Your task to perform on an android device: What is the recent news? Image 0: 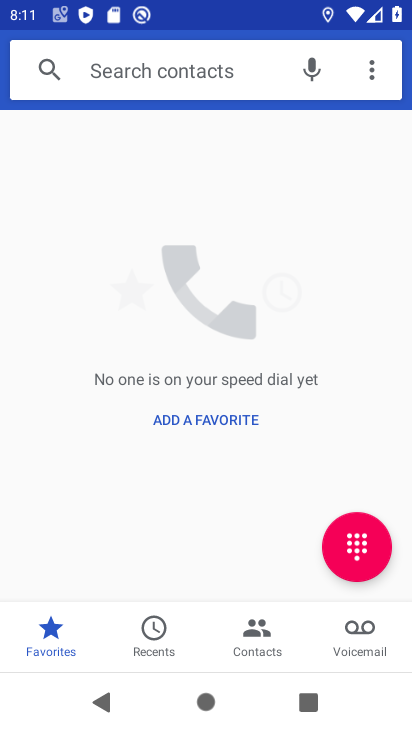
Step 0: press home button
Your task to perform on an android device: What is the recent news? Image 1: 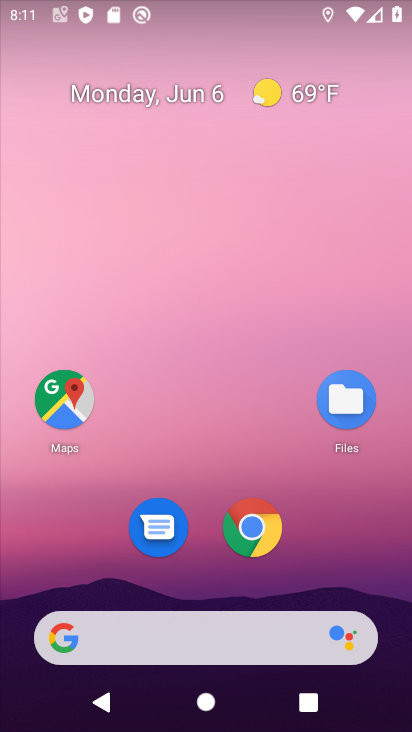
Step 1: drag from (290, 573) to (279, 56)
Your task to perform on an android device: What is the recent news? Image 2: 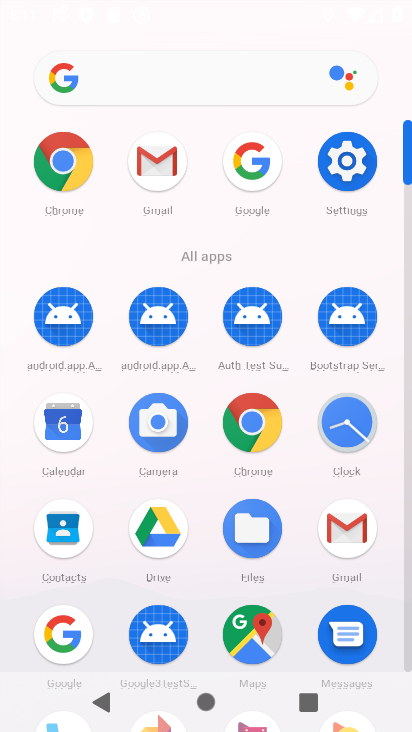
Step 2: click (258, 165)
Your task to perform on an android device: What is the recent news? Image 3: 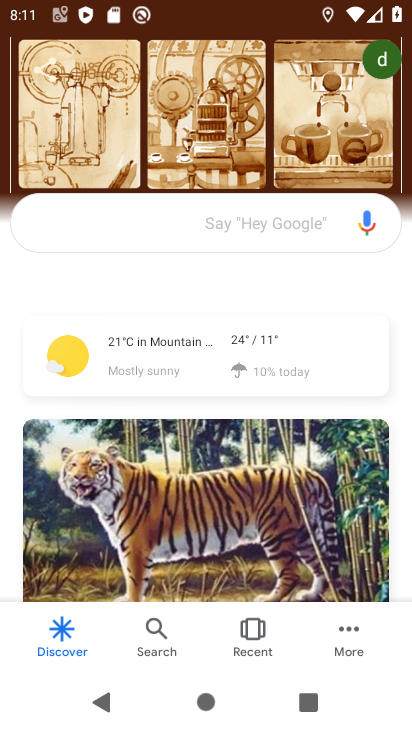
Step 3: click (181, 229)
Your task to perform on an android device: What is the recent news? Image 4: 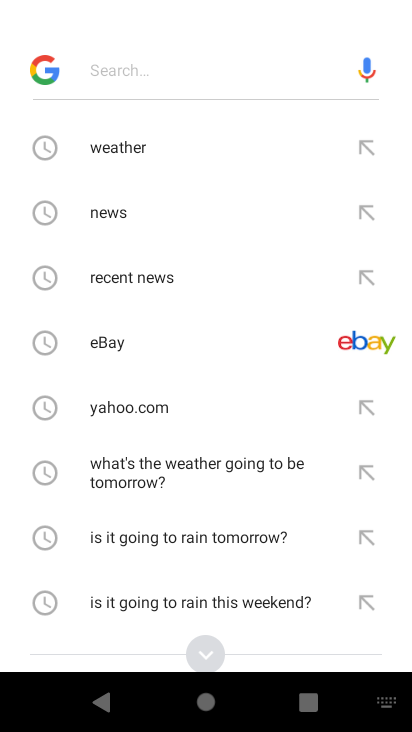
Step 4: click (159, 279)
Your task to perform on an android device: What is the recent news? Image 5: 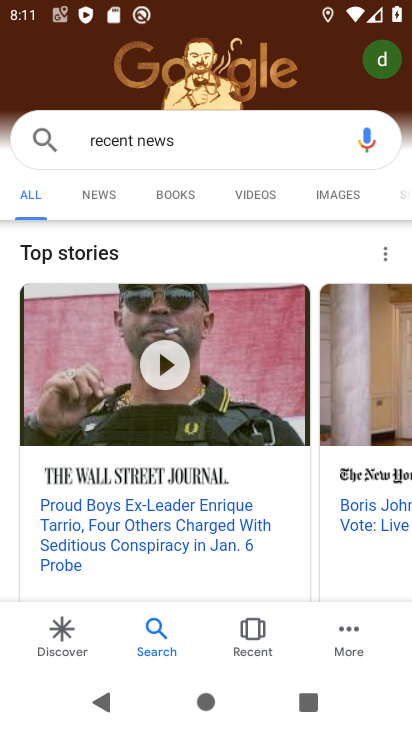
Step 5: task complete